Your task to perform on an android device: turn off improve location accuracy Image 0: 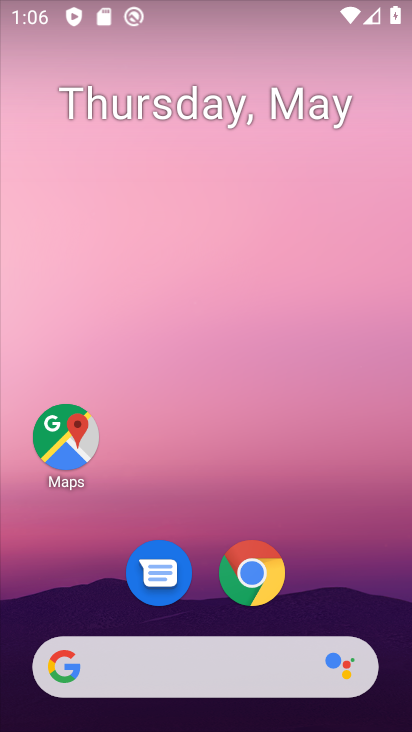
Step 0: drag from (241, 451) to (230, 29)
Your task to perform on an android device: turn off improve location accuracy Image 1: 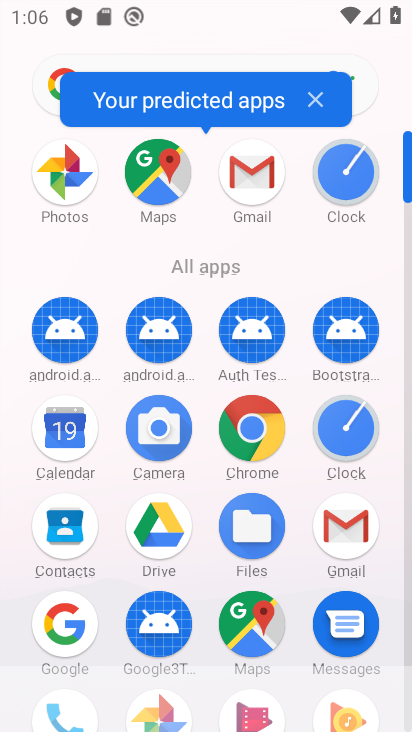
Step 1: drag from (196, 264) to (203, 6)
Your task to perform on an android device: turn off improve location accuracy Image 2: 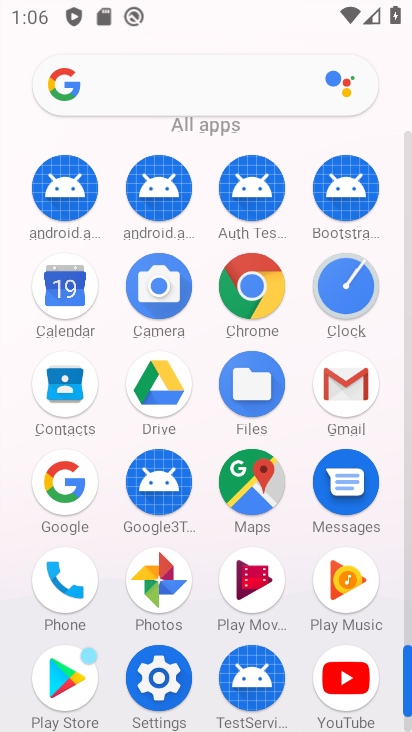
Step 2: click (157, 676)
Your task to perform on an android device: turn off improve location accuracy Image 3: 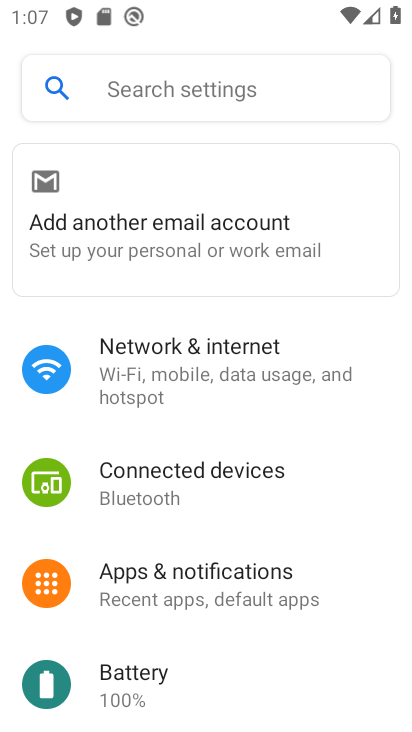
Step 3: drag from (300, 631) to (252, 178)
Your task to perform on an android device: turn off improve location accuracy Image 4: 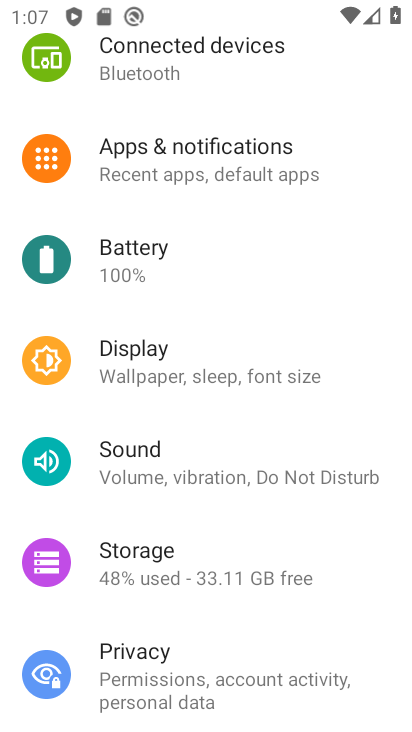
Step 4: drag from (278, 617) to (244, 106)
Your task to perform on an android device: turn off improve location accuracy Image 5: 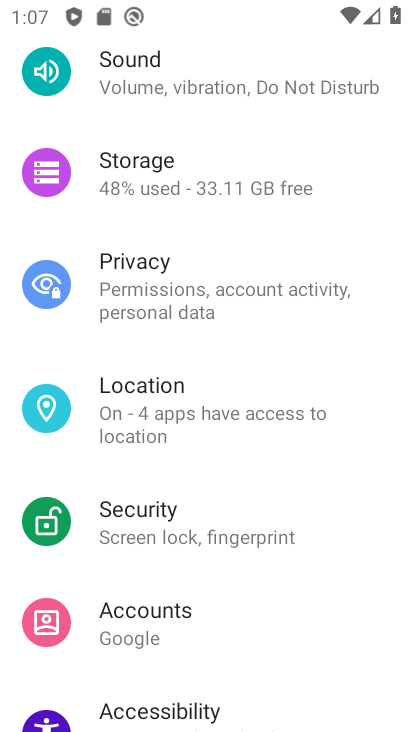
Step 5: click (167, 565)
Your task to perform on an android device: turn off improve location accuracy Image 6: 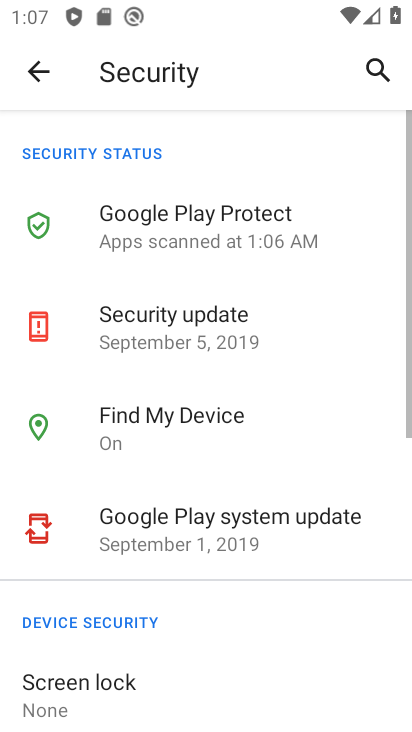
Step 6: click (36, 78)
Your task to perform on an android device: turn off improve location accuracy Image 7: 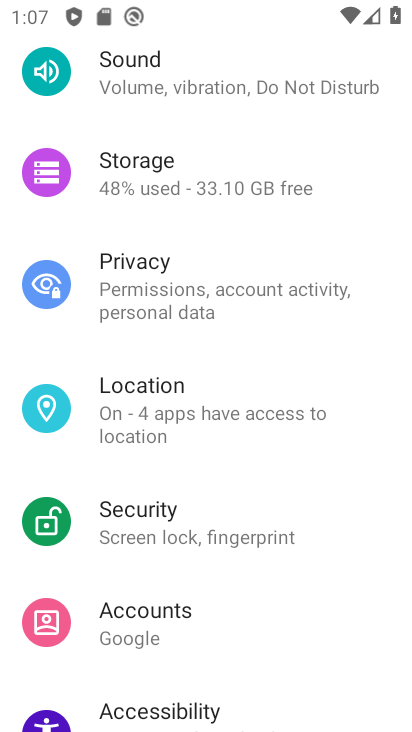
Step 7: click (132, 408)
Your task to perform on an android device: turn off improve location accuracy Image 8: 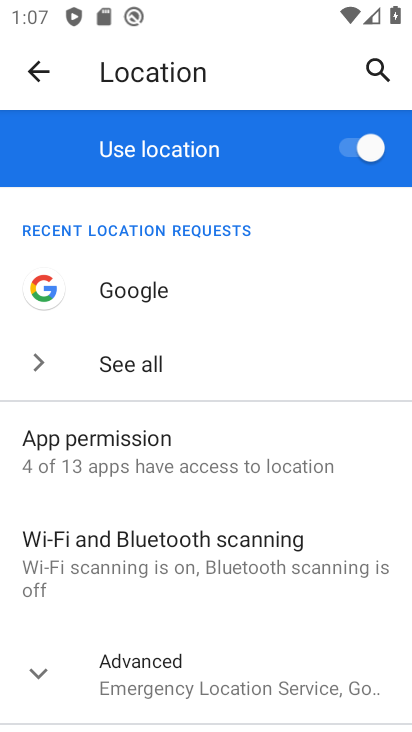
Step 8: click (354, 144)
Your task to perform on an android device: turn off improve location accuracy Image 9: 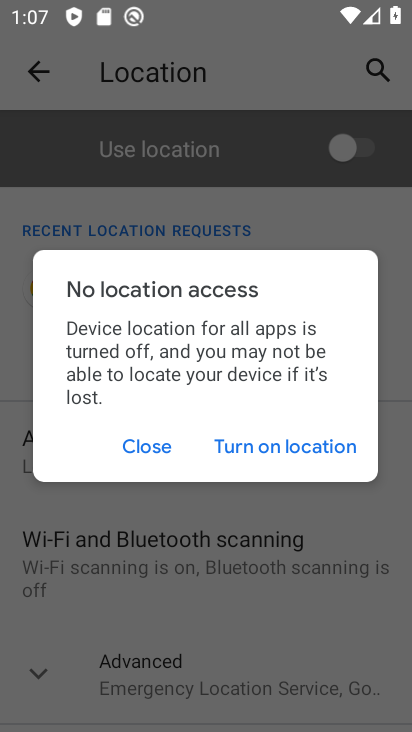
Step 9: click (142, 448)
Your task to perform on an android device: turn off improve location accuracy Image 10: 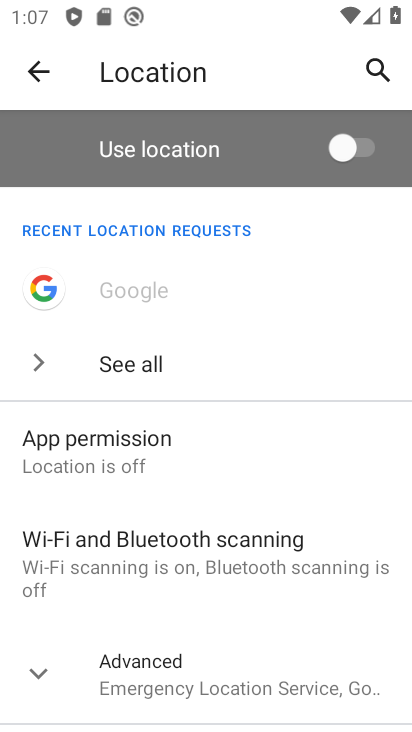
Step 10: task complete